Your task to perform on an android device: Go to accessibility settings Image 0: 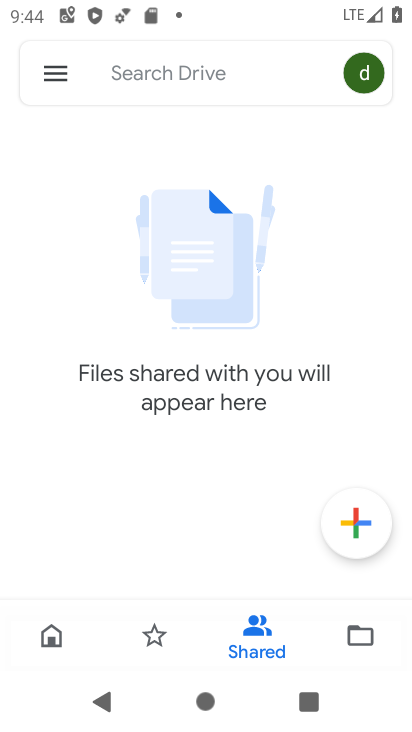
Step 0: press home button
Your task to perform on an android device: Go to accessibility settings Image 1: 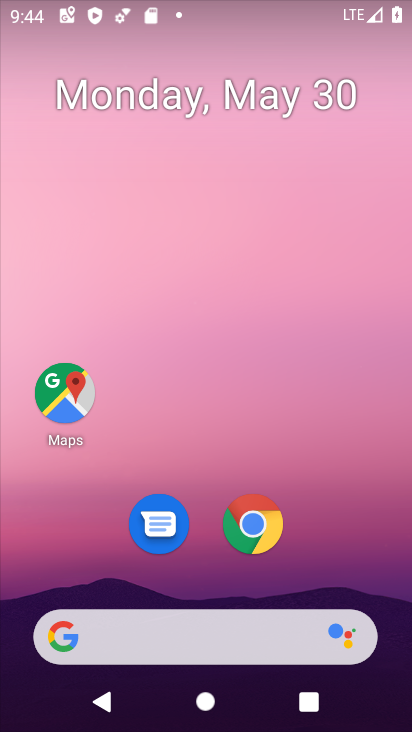
Step 1: drag from (234, 450) to (242, 0)
Your task to perform on an android device: Go to accessibility settings Image 2: 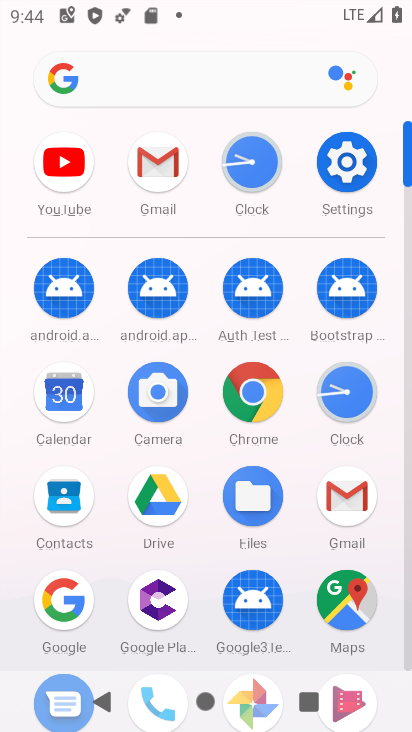
Step 2: click (334, 166)
Your task to perform on an android device: Go to accessibility settings Image 3: 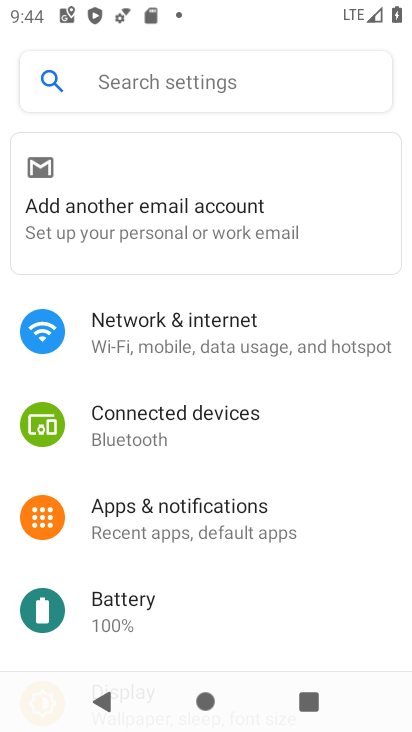
Step 3: drag from (235, 597) to (230, 36)
Your task to perform on an android device: Go to accessibility settings Image 4: 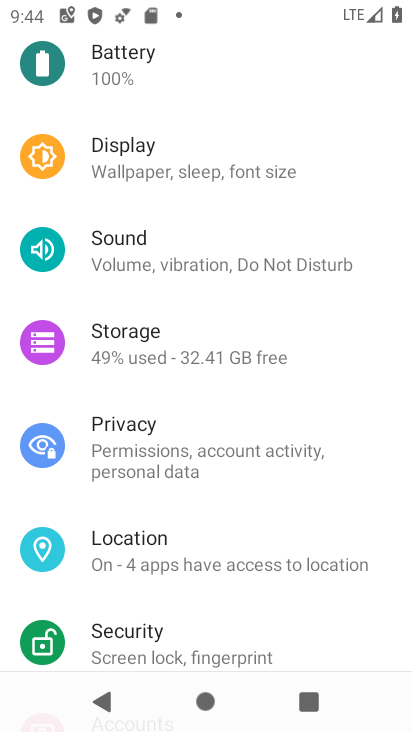
Step 4: drag from (227, 475) to (265, 84)
Your task to perform on an android device: Go to accessibility settings Image 5: 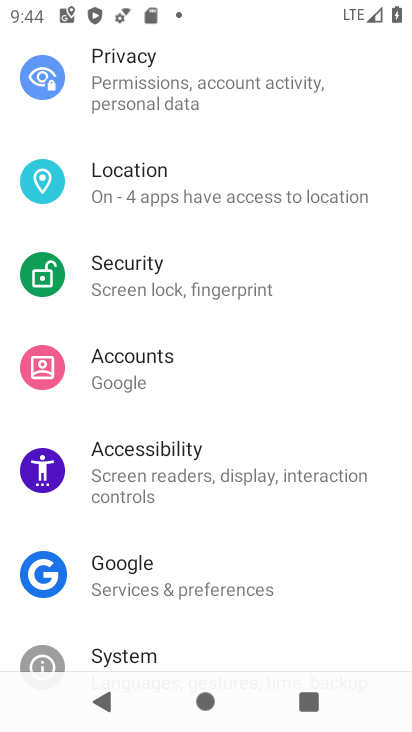
Step 5: click (228, 462)
Your task to perform on an android device: Go to accessibility settings Image 6: 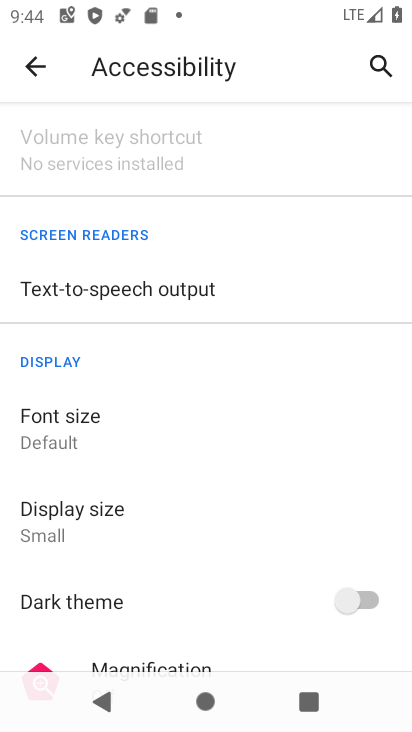
Step 6: task complete